Your task to perform on an android device: What is the news today? Image 0: 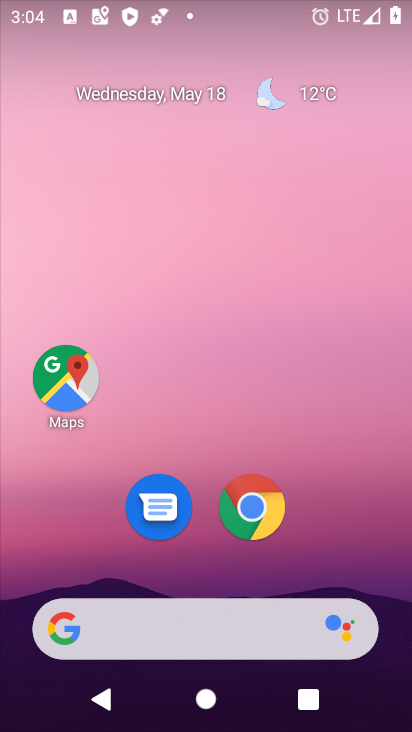
Step 0: drag from (12, 248) to (408, 306)
Your task to perform on an android device: What is the news today? Image 1: 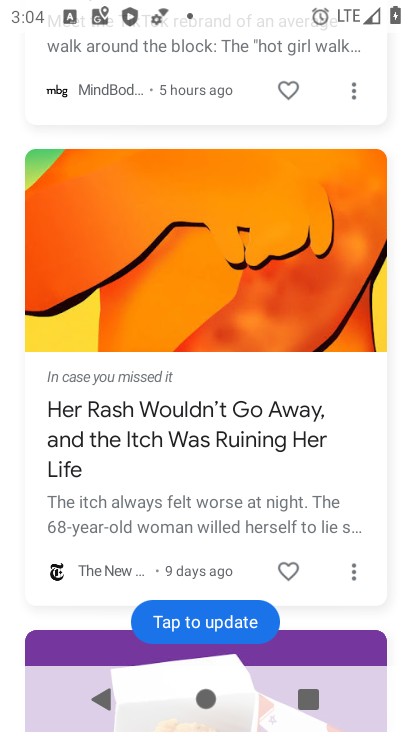
Step 1: task complete